Your task to perform on an android device: Open Yahoo.com Image 0: 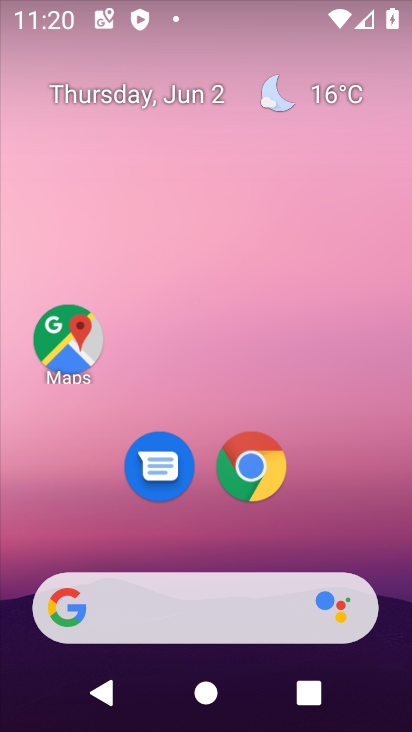
Step 0: click (264, 486)
Your task to perform on an android device: Open Yahoo.com Image 1: 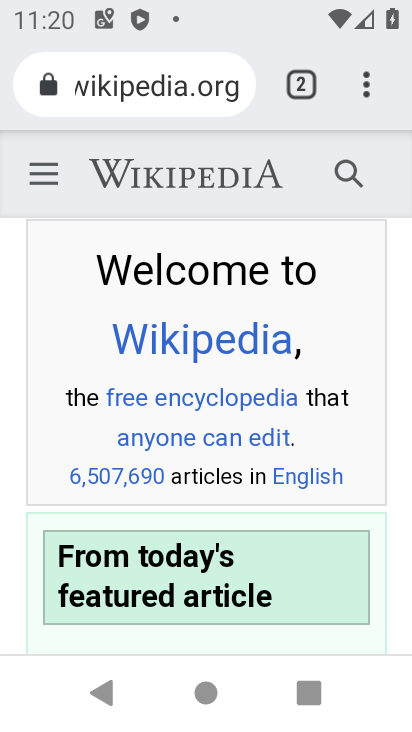
Step 1: click (303, 83)
Your task to perform on an android device: Open Yahoo.com Image 2: 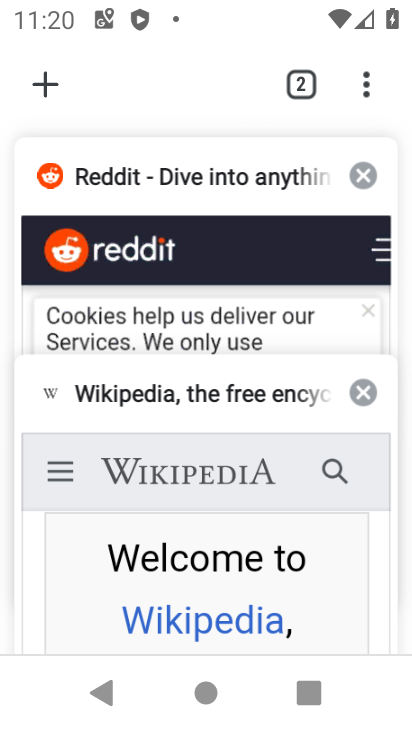
Step 2: click (37, 80)
Your task to perform on an android device: Open Yahoo.com Image 3: 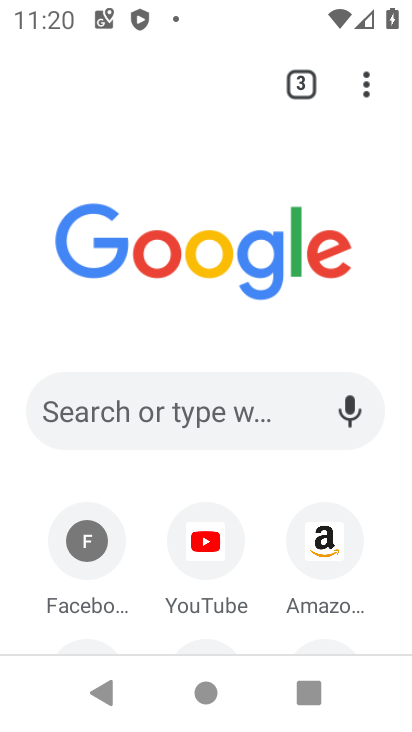
Step 3: drag from (224, 581) to (234, 247)
Your task to perform on an android device: Open Yahoo.com Image 4: 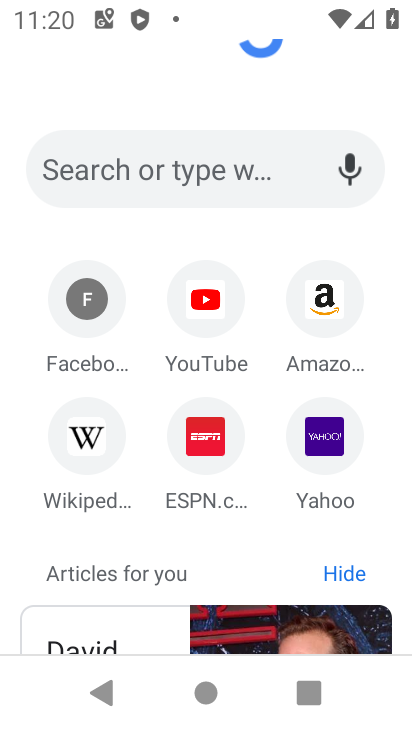
Step 4: click (321, 468)
Your task to perform on an android device: Open Yahoo.com Image 5: 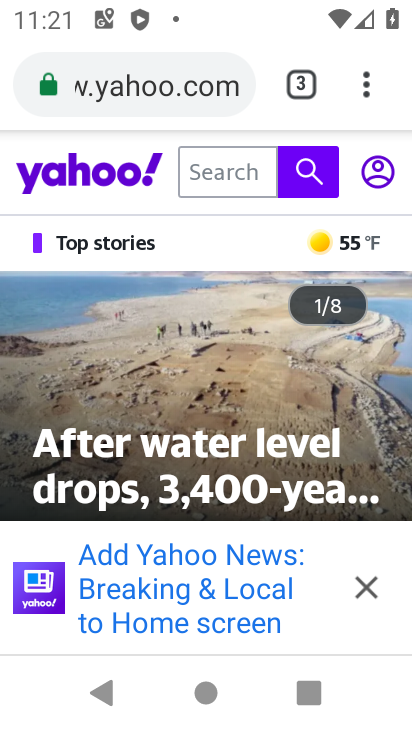
Step 5: task complete